Your task to perform on an android device: What's on my calendar tomorrow? Image 0: 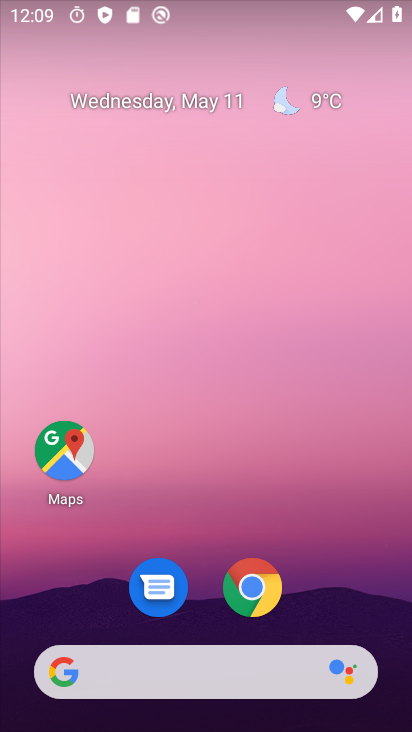
Step 0: drag from (342, 669) to (202, 254)
Your task to perform on an android device: What's on my calendar tomorrow? Image 1: 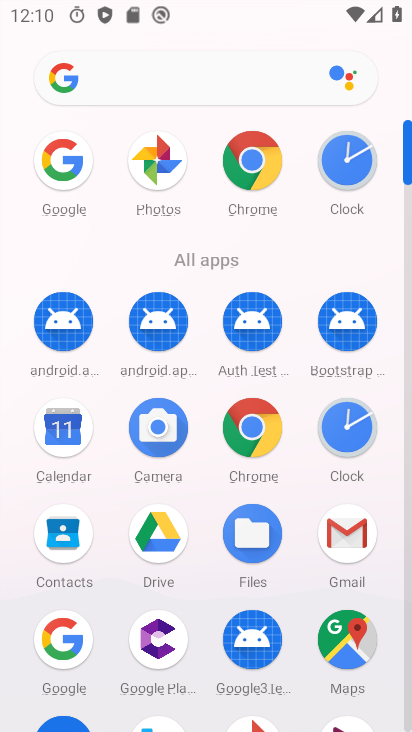
Step 1: click (64, 433)
Your task to perform on an android device: What's on my calendar tomorrow? Image 2: 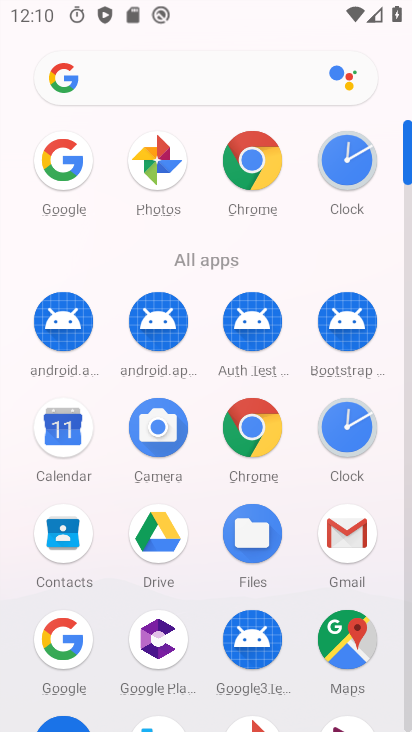
Step 2: click (63, 432)
Your task to perform on an android device: What's on my calendar tomorrow? Image 3: 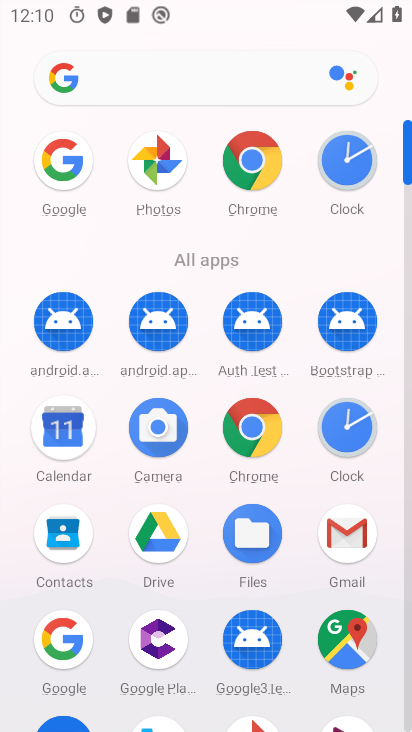
Step 3: click (61, 438)
Your task to perform on an android device: What's on my calendar tomorrow? Image 4: 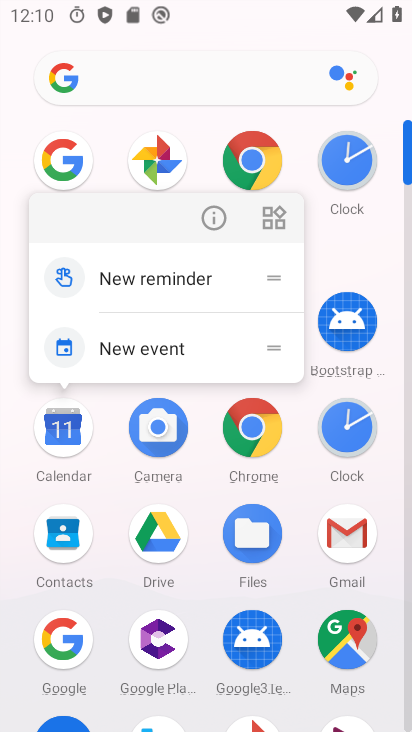
Step 4: click (64, 424)
Your task to perform on an android device: What's on my calendar tomorrow? Image 5: 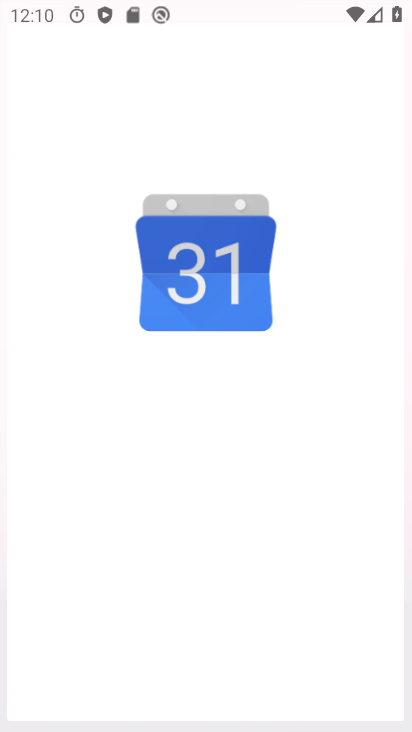
Step 5: click (65, 424)
Your task to perform on an android device: What's on my calendar tomorrow? Image 6: 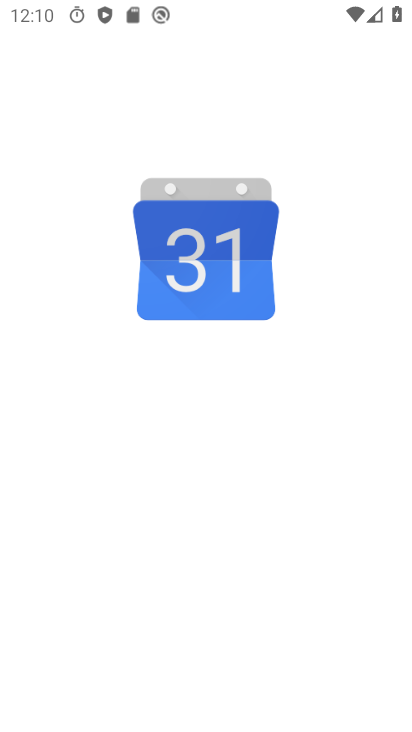
Step 6: click (65, 424)
Your task to perform on an android device: What's on my calendar tomorrow? Image 7: 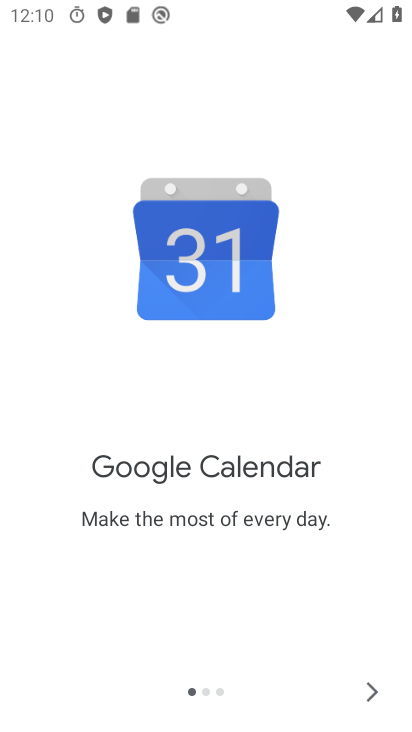
Step 7: click (364, 698)
Your task to perform on an android device: What's on my calendar tomorrow? Image 8: 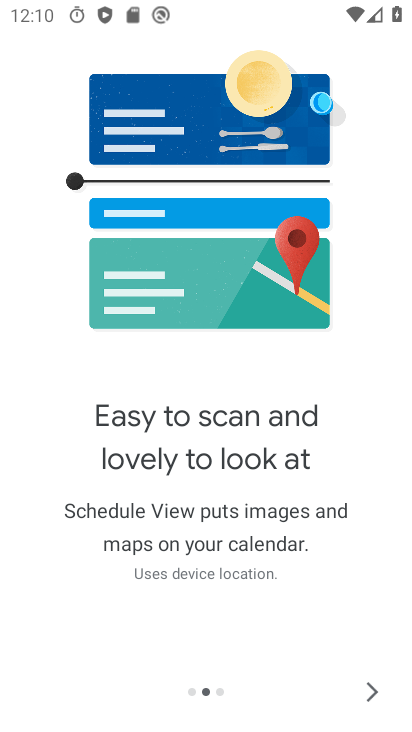
Step 8: click (370, 689)
Your task to perform on an android device: What's on my calendar tomorrow? Image 9: 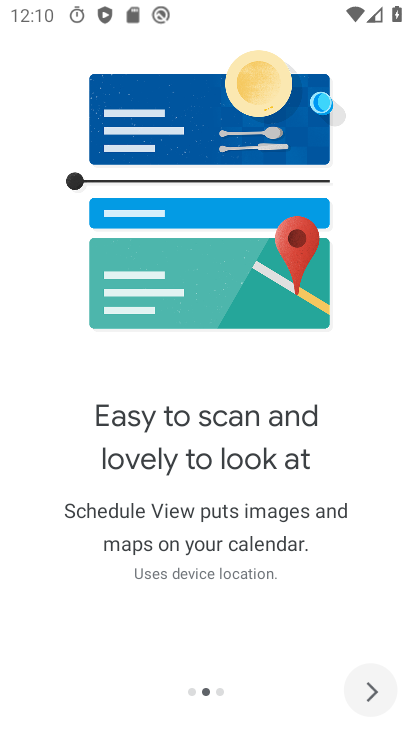
Step 9: click (370, 689)
Your task to perform on an android device: What's on my calendar tomorrow? Image 10: 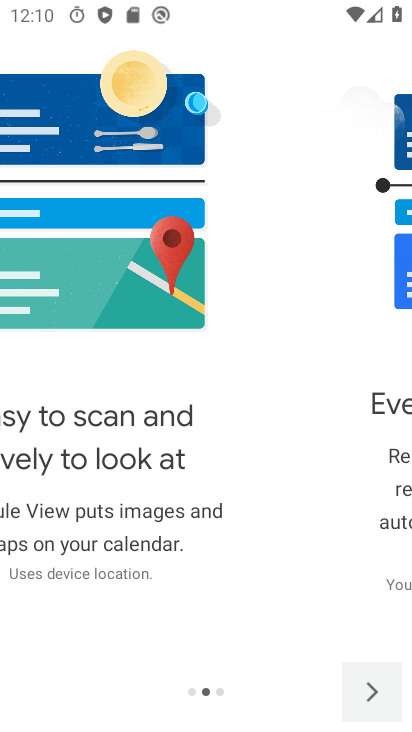
Step 10: click (370, 689)
Your task to perform on an android device: What's on my calendar tomorrow? Image 11: 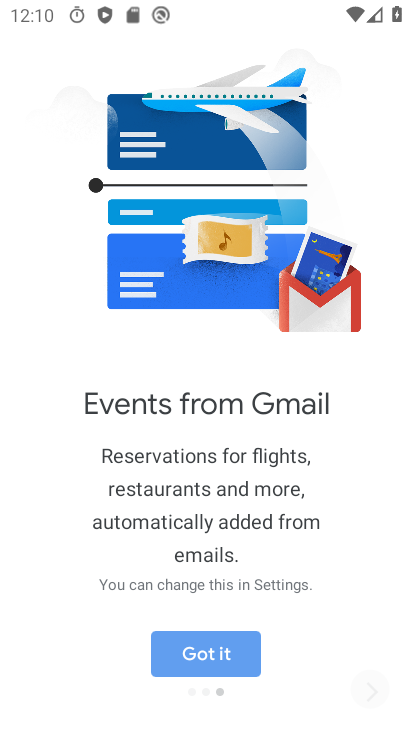
Step 11: click (370, 689)
Your task to perform on an android device: What's on my calendar tomorrow? Image 12: 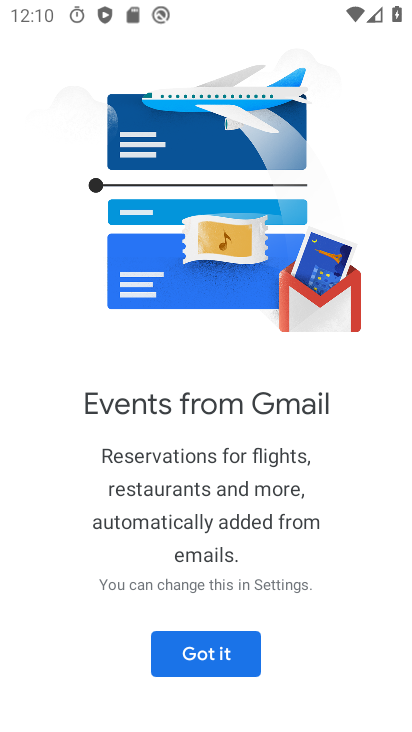
Step 12: click (370, 689)
Your task to perform on an android device: What's on my calendar tomorrow? Image 13: 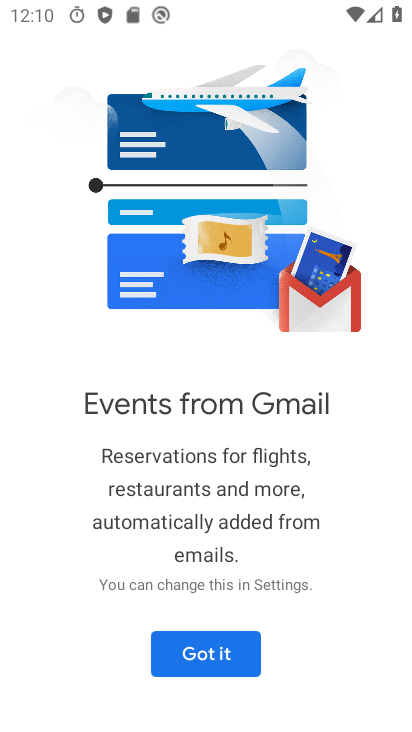
Step 13: click (227, 660)
Your task to perform on an android device: What's on my calendar tomorrow? Image 14: 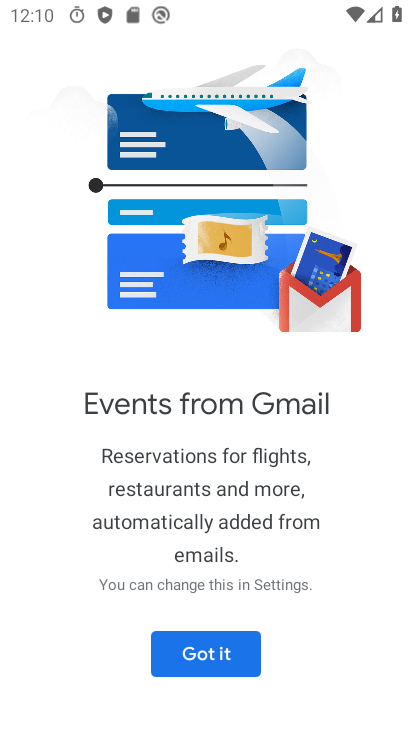
Step 14: click (228, 660)
Your task to perform on an android device: What's on my calendar tomorrow? Image 15: 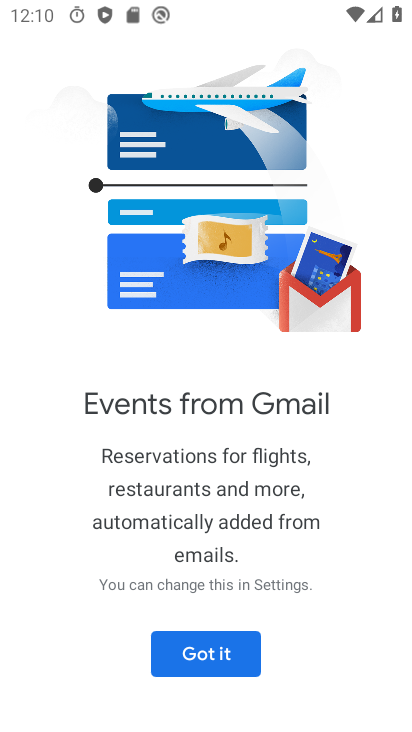
Step 15: click (228, 660)
Your task to perform on an android device: What's on my calendar tomorrow? Image 16: 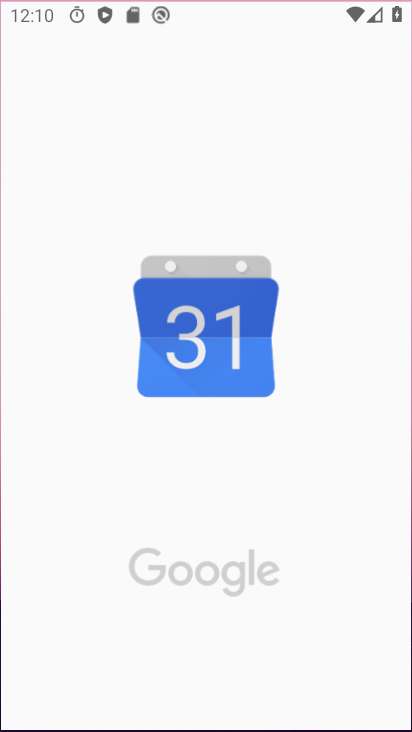
Step 16: click (223, 651)
Your task to perform on an android device: What's on my calendar tomorrow? Image 17: 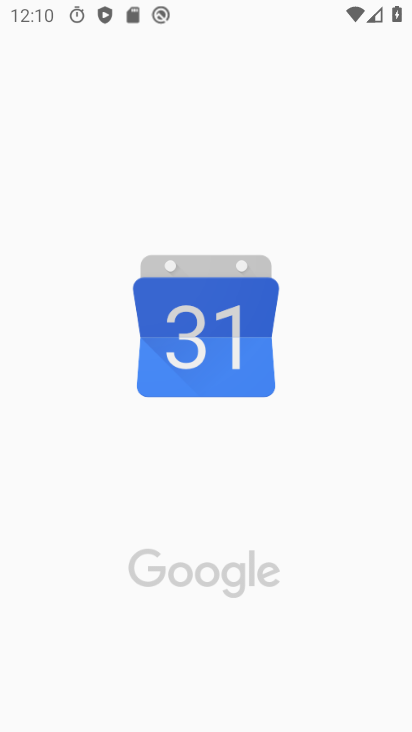
Step 17: click (223, 651)
Your task to perform on an android device: What's on my calendar tomorrow? Image 18: 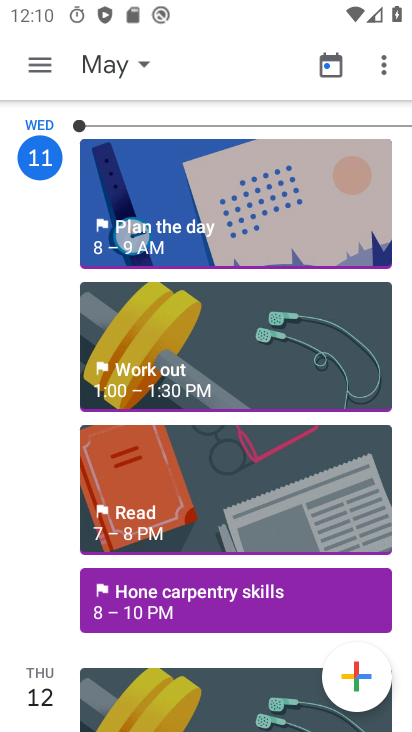
Step 18: task complete